Your task to perform on an android device: toggle data saver in the chrome app Image 0: 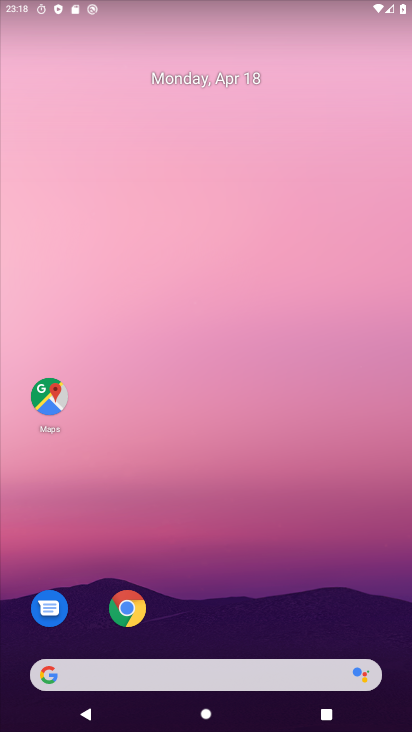
Step 0: click (124, 604)
Your task to perform on an android device: toggle data saver in the chrome app Image 1: 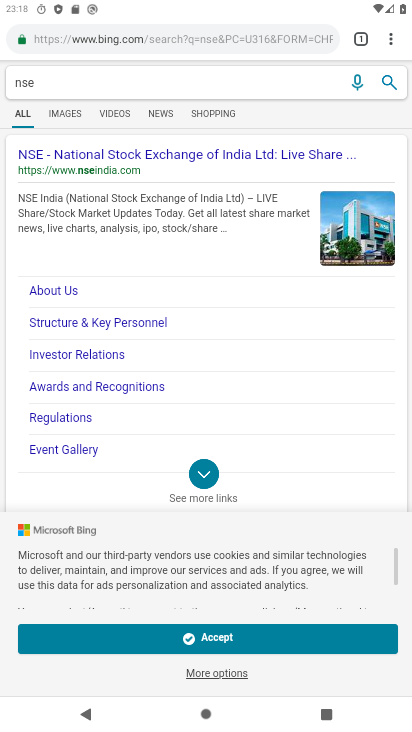
Step 1: click (388, 38)
Your task to perform on an android device: toggle data saver in the chrome app Image 2: 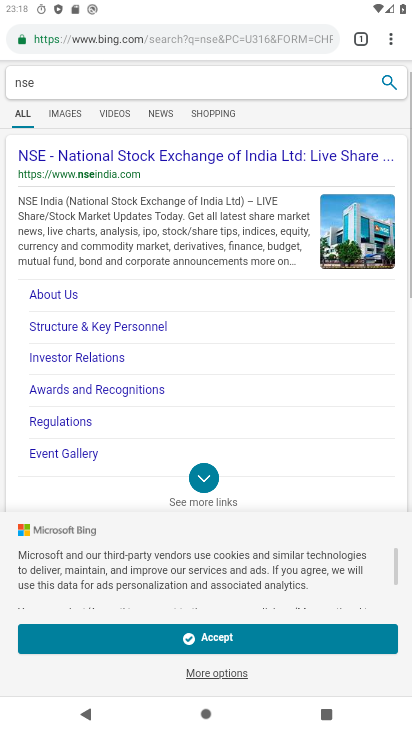
Step 2: drag from (388, 39) to (286, 512)
Your task to perform on an android device: toggle data saver in the chrome app Image 3: 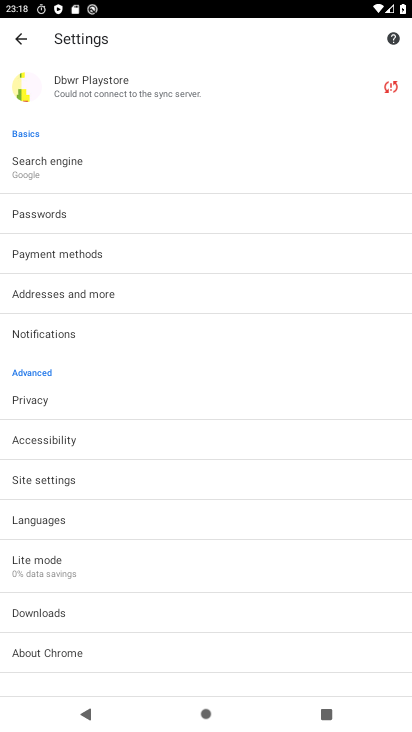
Step 3: click (57, 557)
Your task to perform on an android device: toggle data saver in the chrome app Image 4: 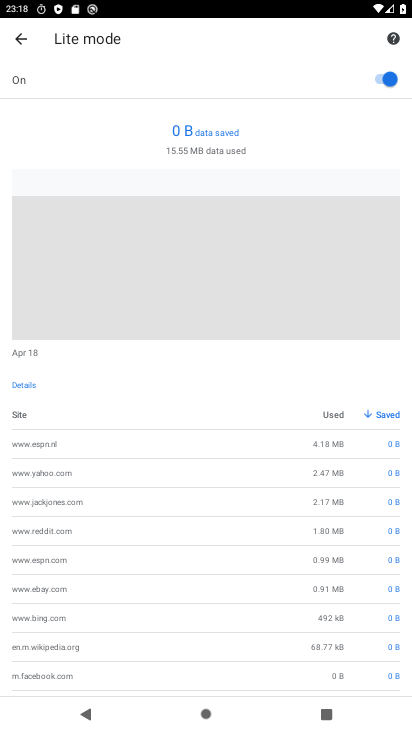
Step 4: click (391, 76)
Your task to perform on an android device: toggle data saver in the chrome app Image 5: 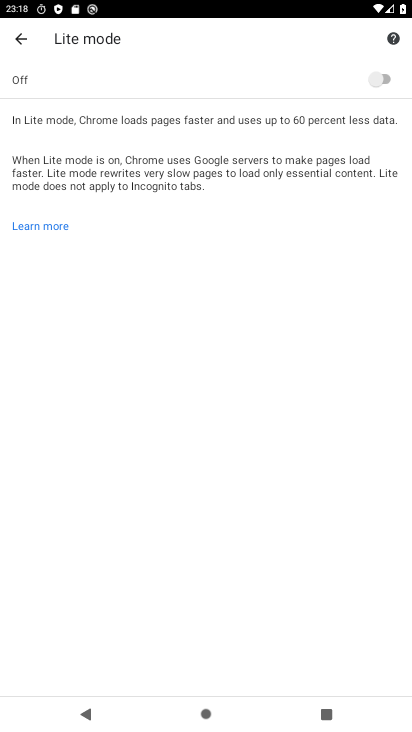
Step 5: task complete